Your task to perform on an android device: open app "Walmart Shopping & Grocery" (install if not already installed) Image 0: 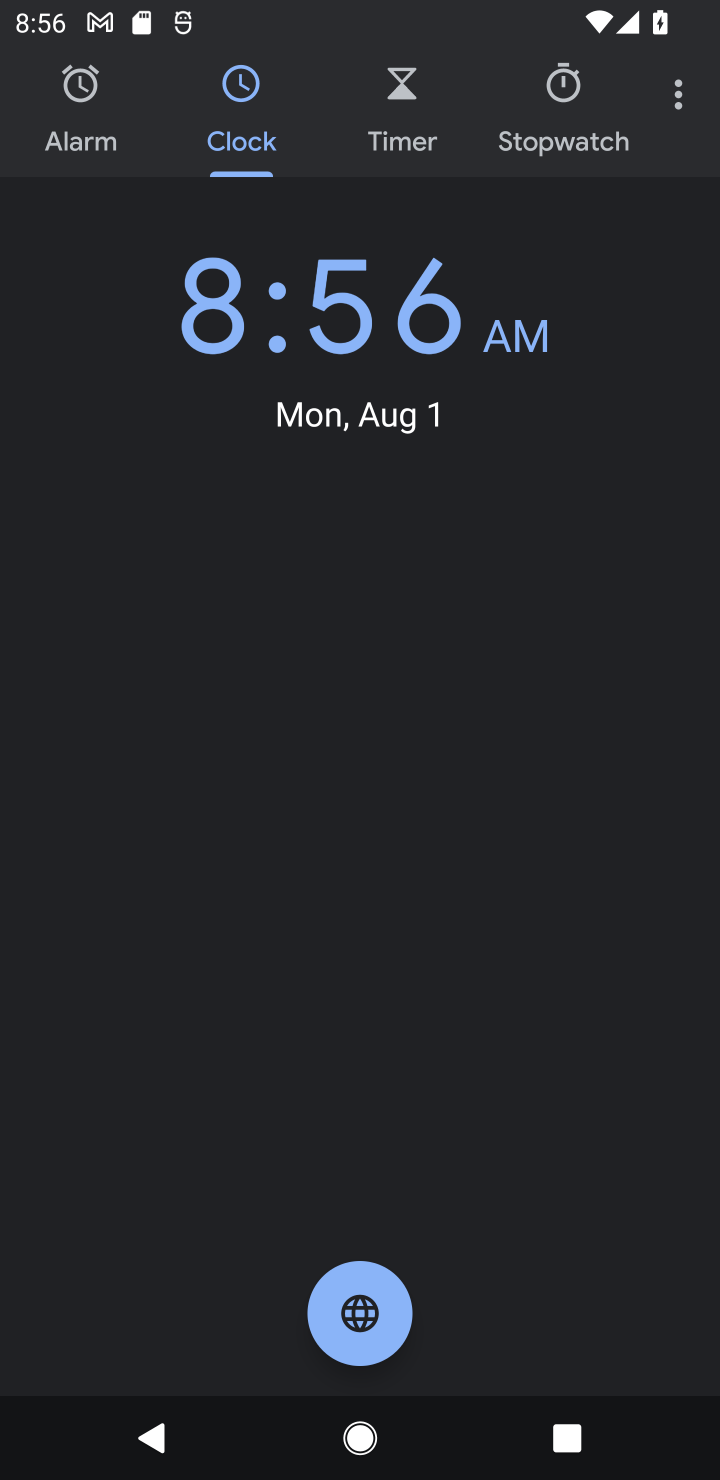
Step 0: press home button
Your task to perform on an android device: open app "Walmart Shopping & Grocery" (install if not already installed) Image 1: 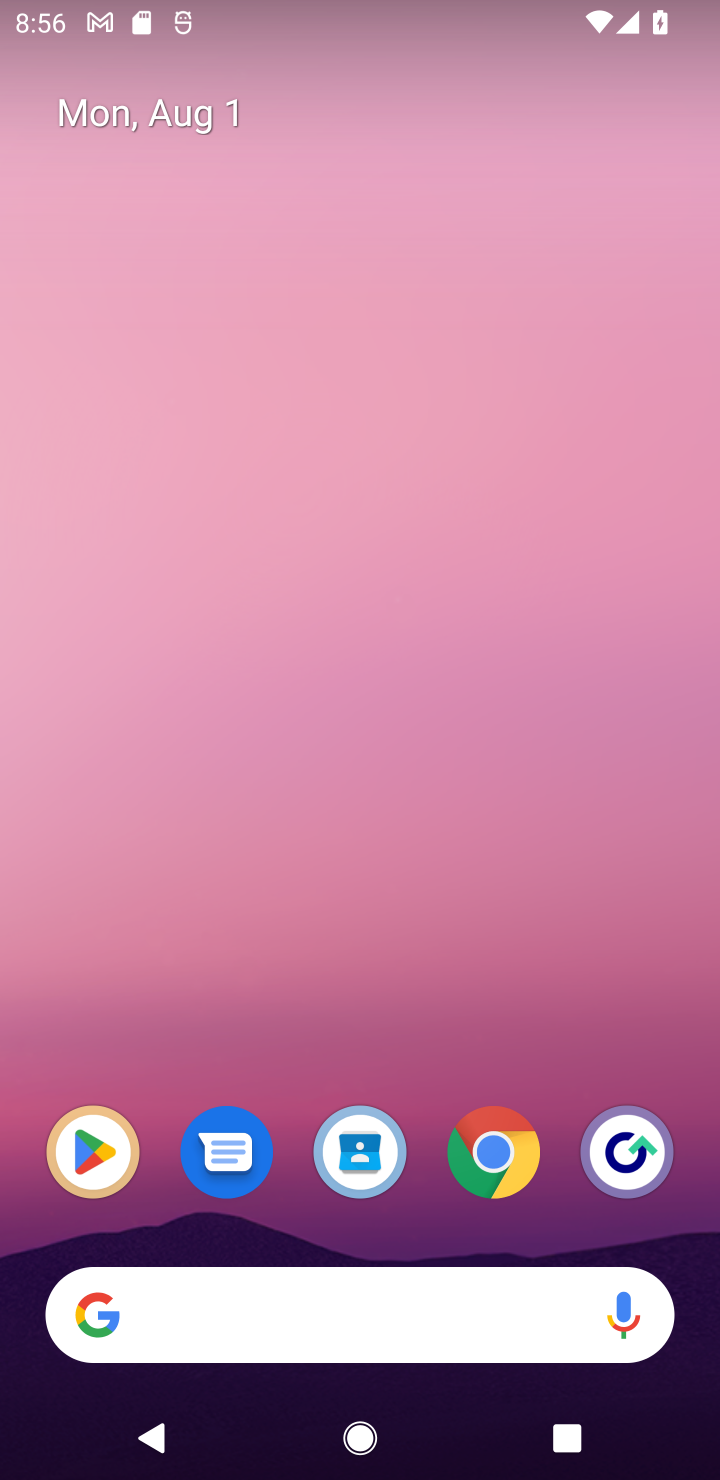
Step 1: drag from (329, 1273) to (329, 253)
Your task to perform on an android device: open app "Walmart Shopping & Grocery" (install if not already installed) Image 2: 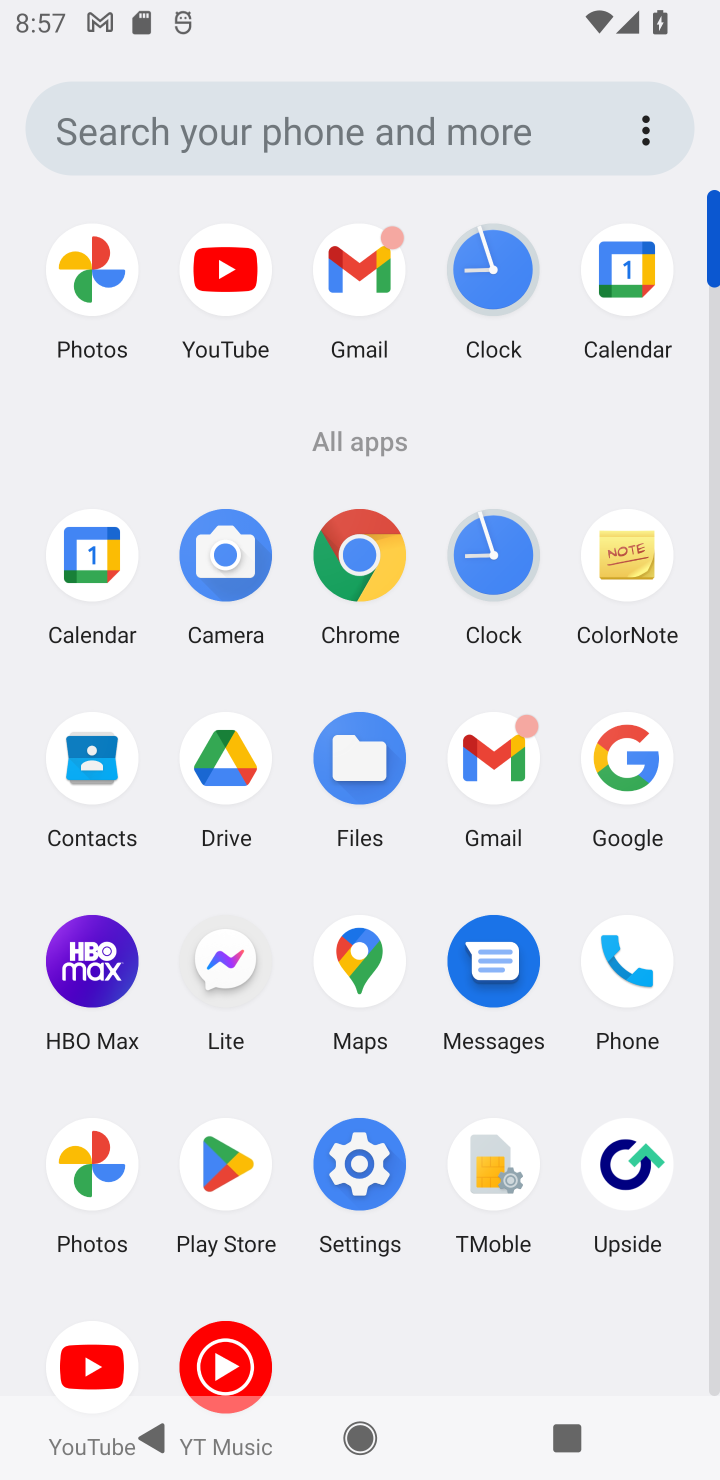
Step 2: click (218, 1181)
Your task to perform on an android device: open app "Walmart Shopping & Grocery" (install if not already installed) Image 3: 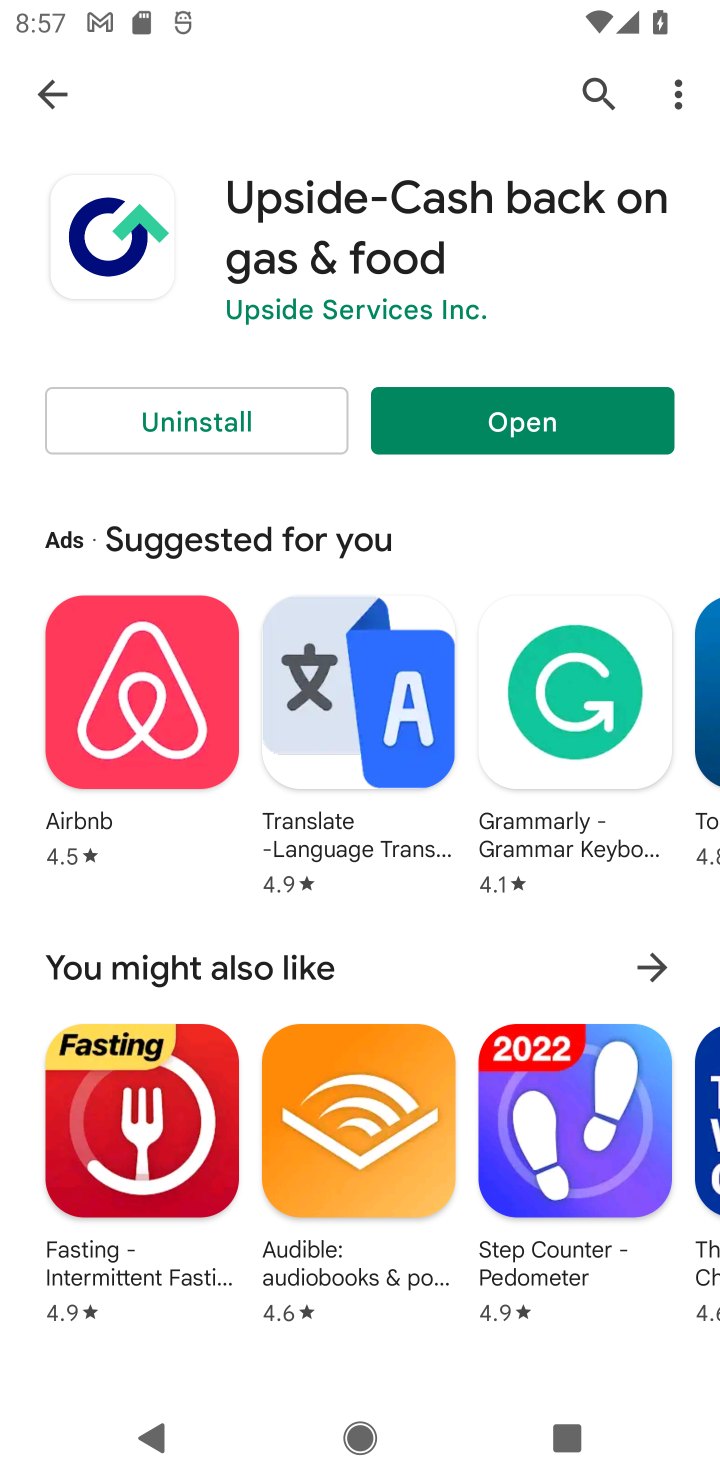
Step 3: click (47, 115)
Your task to perform on an android device: open app "Walmart Shopping & Grocery" (install if not already installed) Image 4: 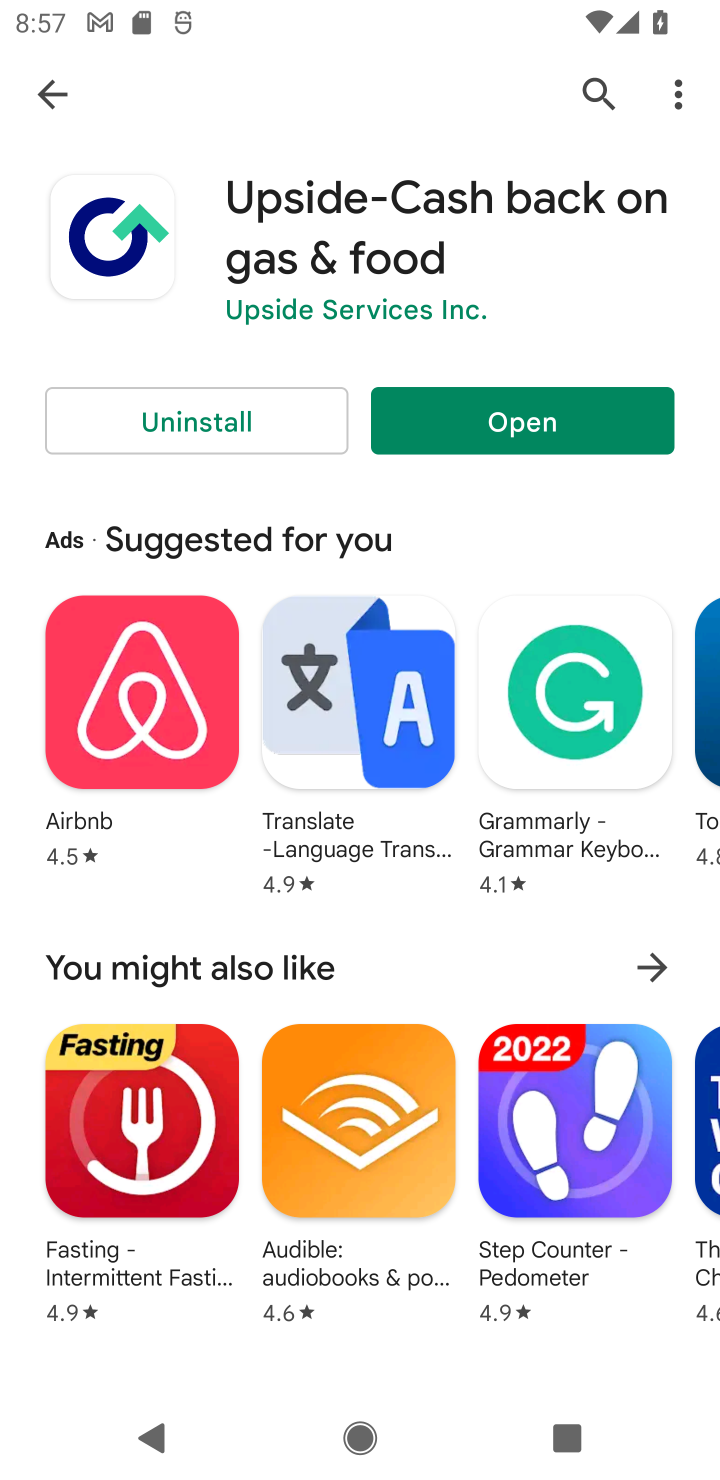
Step 4: click (67, 76)
Your task to perform on an android device: open app "Walmart Shopping & Grocery" (install if not already installed) Image 5: 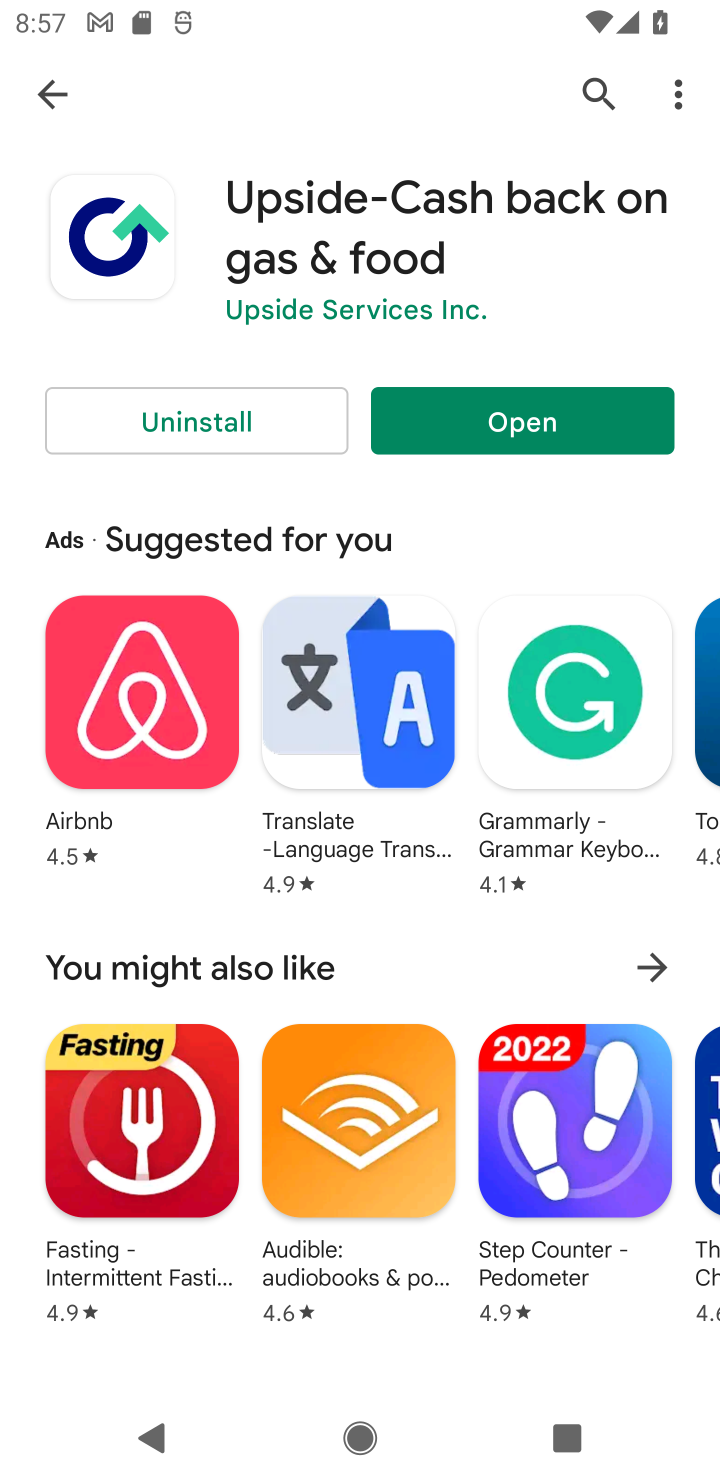
Step 5: click (56, 88)
Your task to perform on an android device: open app "Walmart Shopping & Grocery" (install if not already installed) Image 6: 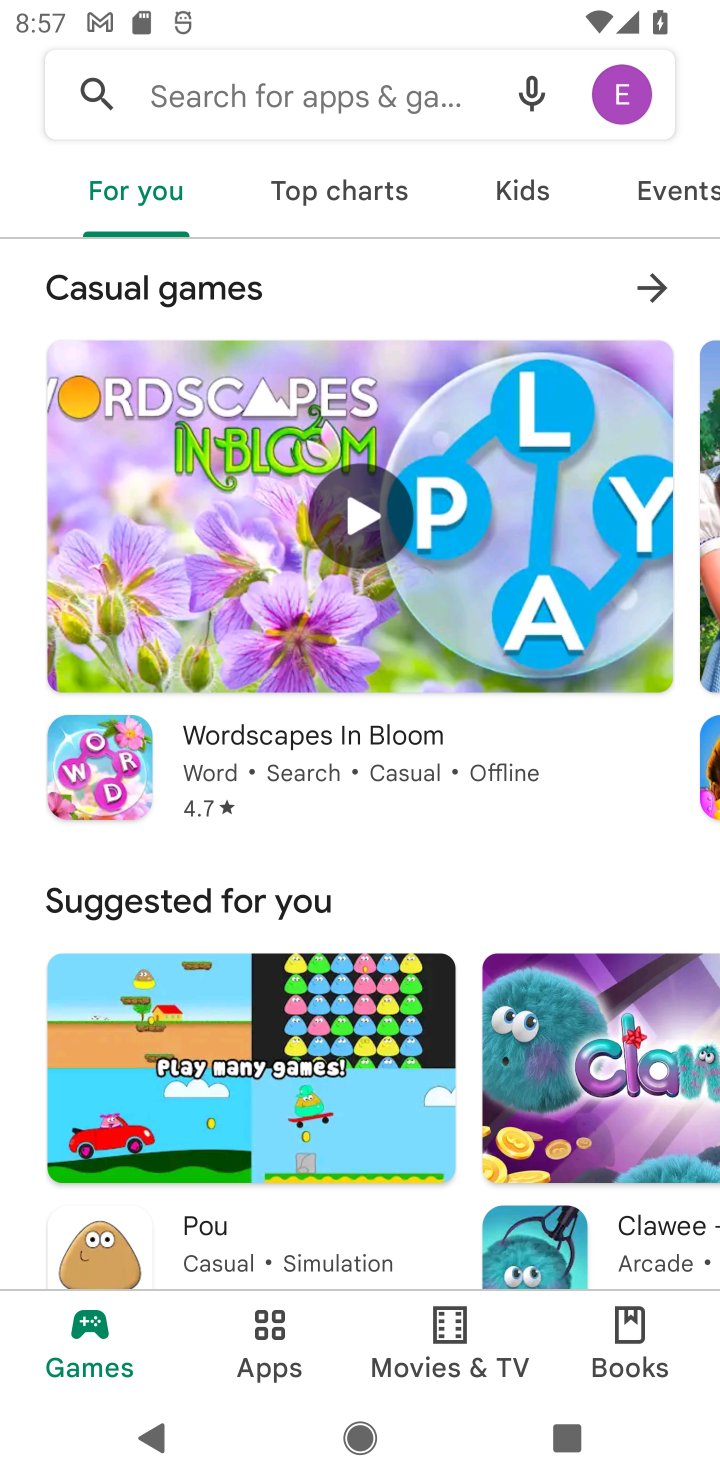
Step 6: click (197, 88)
Your task to perform on an android device: open app "Walmart Shopping & Grocery" (install if not already installed) Image 7: 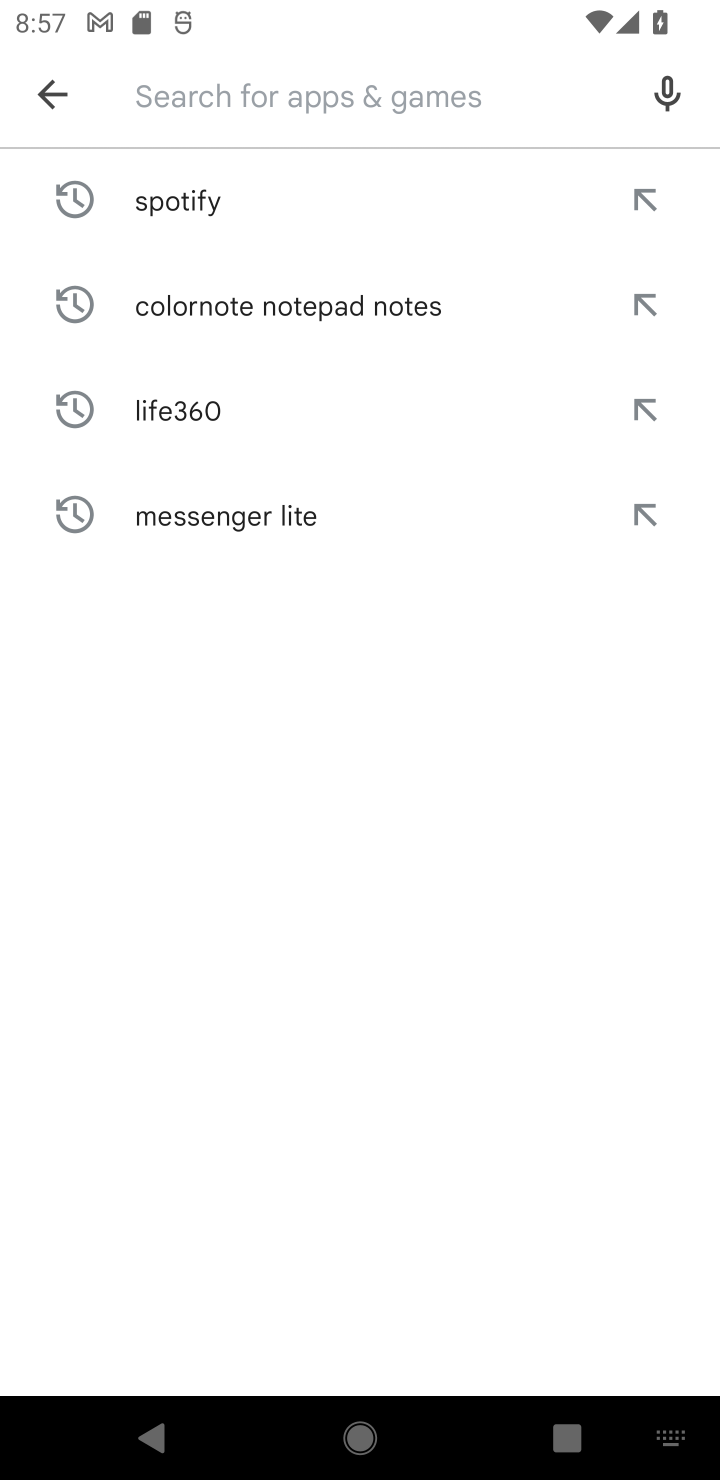
Step 7: type "Walmart Shopping & Grocery"
Your task to perform on an android device: open app "Walmart Shopping & Grocery" (install if not already installed) Image 8: 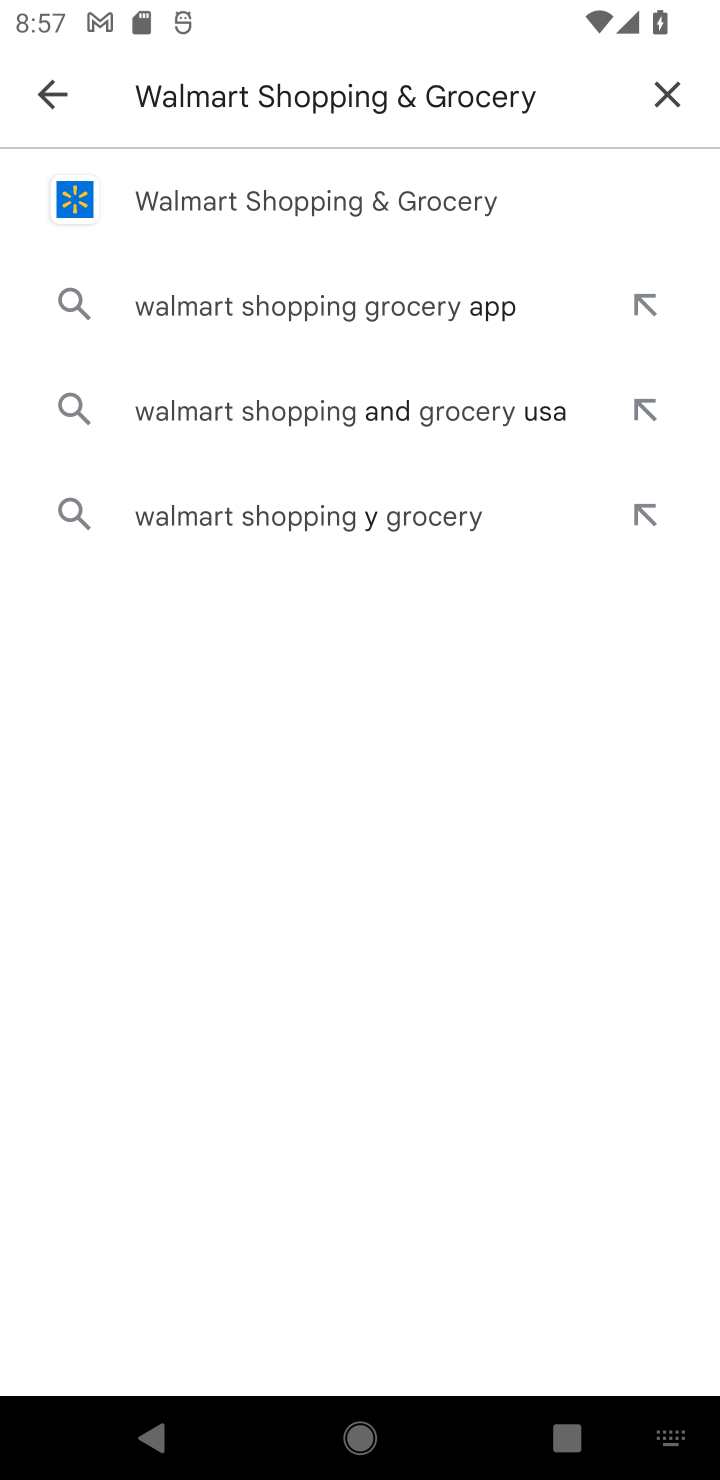
Step 8: click (442, 203)
Your task to perform on an android device: open app "Walmart Shopping & Grocery" (install if not already installed) Image 9: 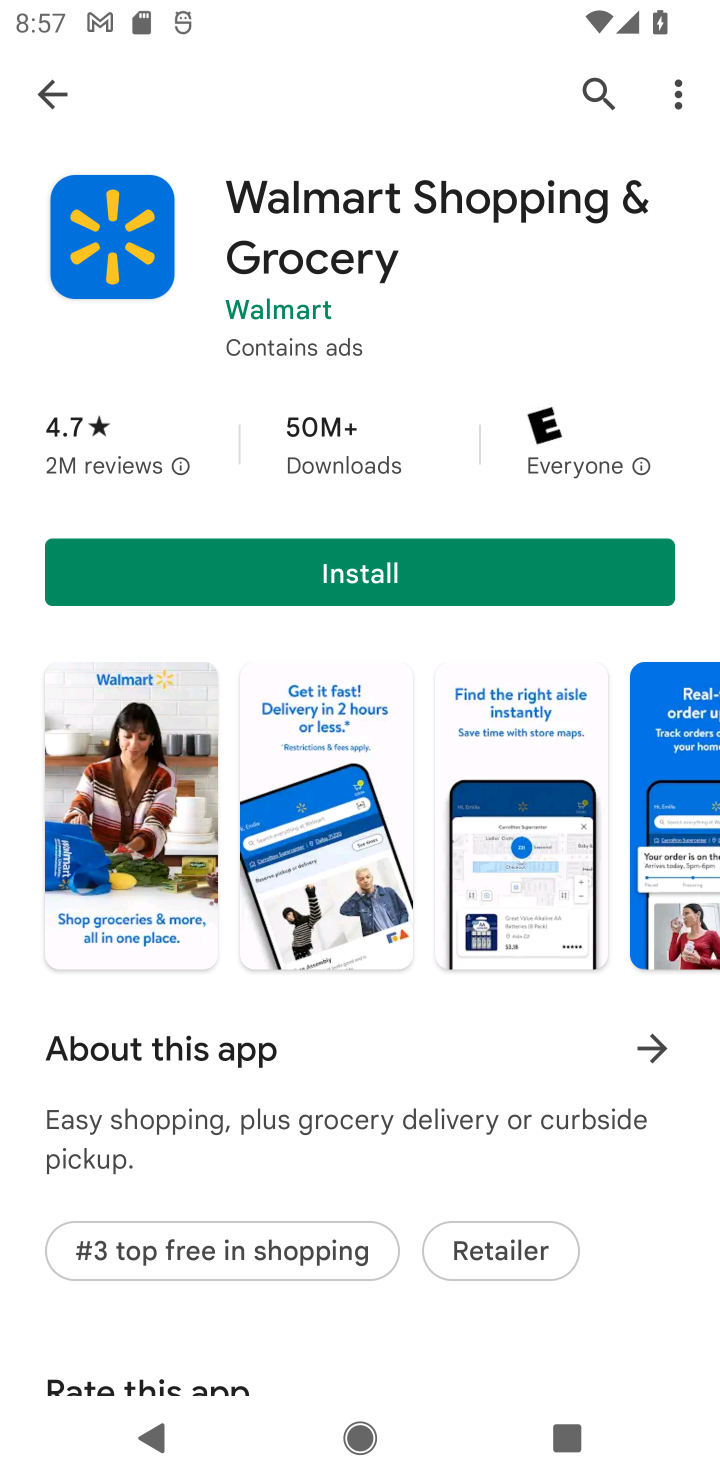
Step 9: click (320, 565)
Your task to perform on an android device: open app "Walmart Shopping & Grocery" (install if not already installed) Image 10: 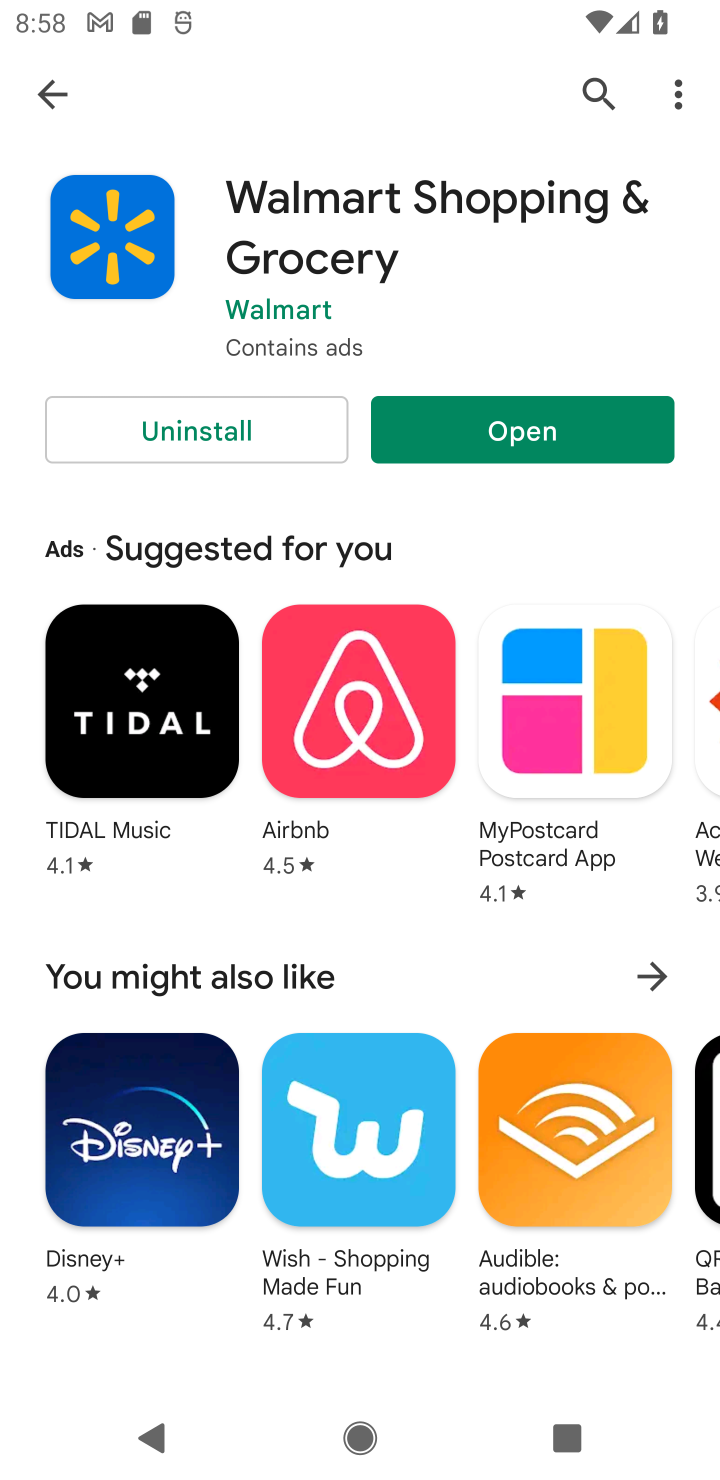
Step 10: click (555, 440)
Your task to perform on an android device: open app "Walmart Shopping & Grocery" (install if not already installed) Image 11: 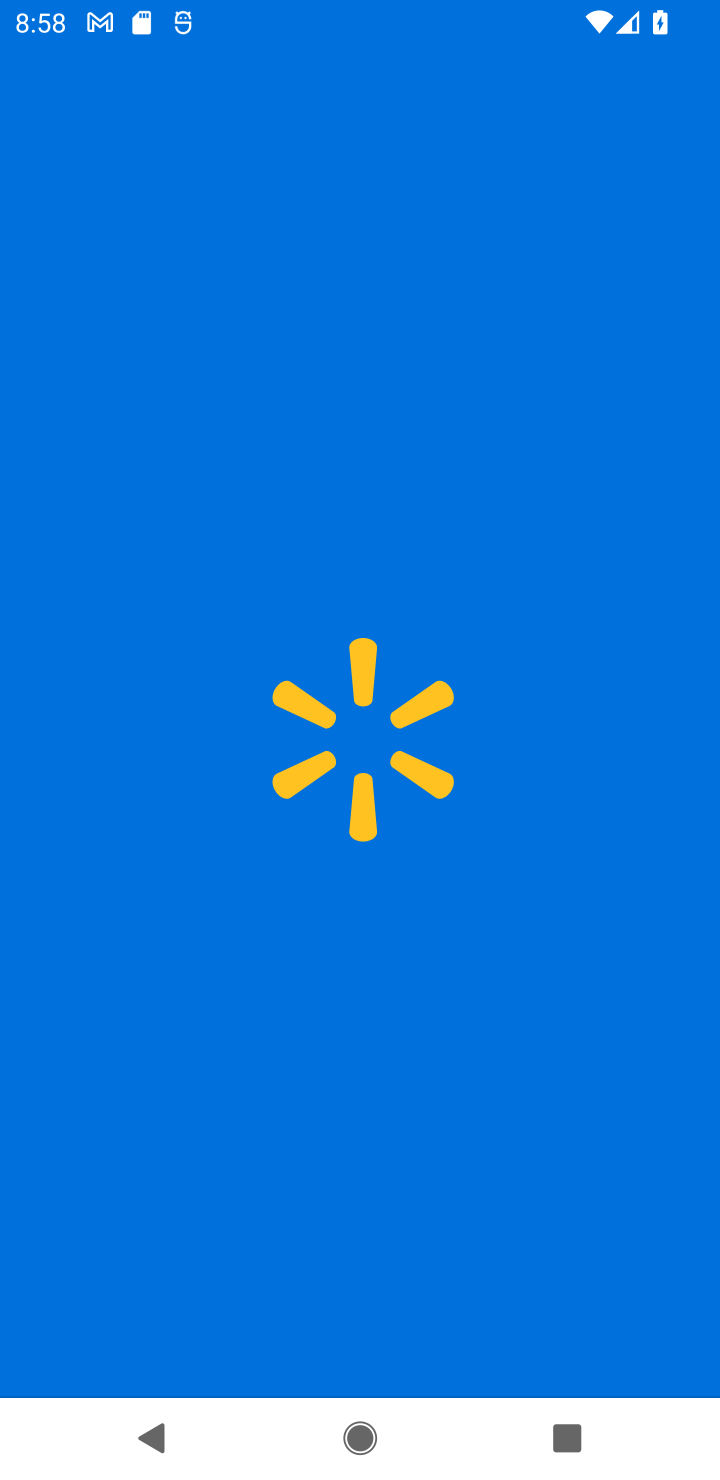
Step 11: task complete